Your task to perform on an android device: check out phone information Image 0: 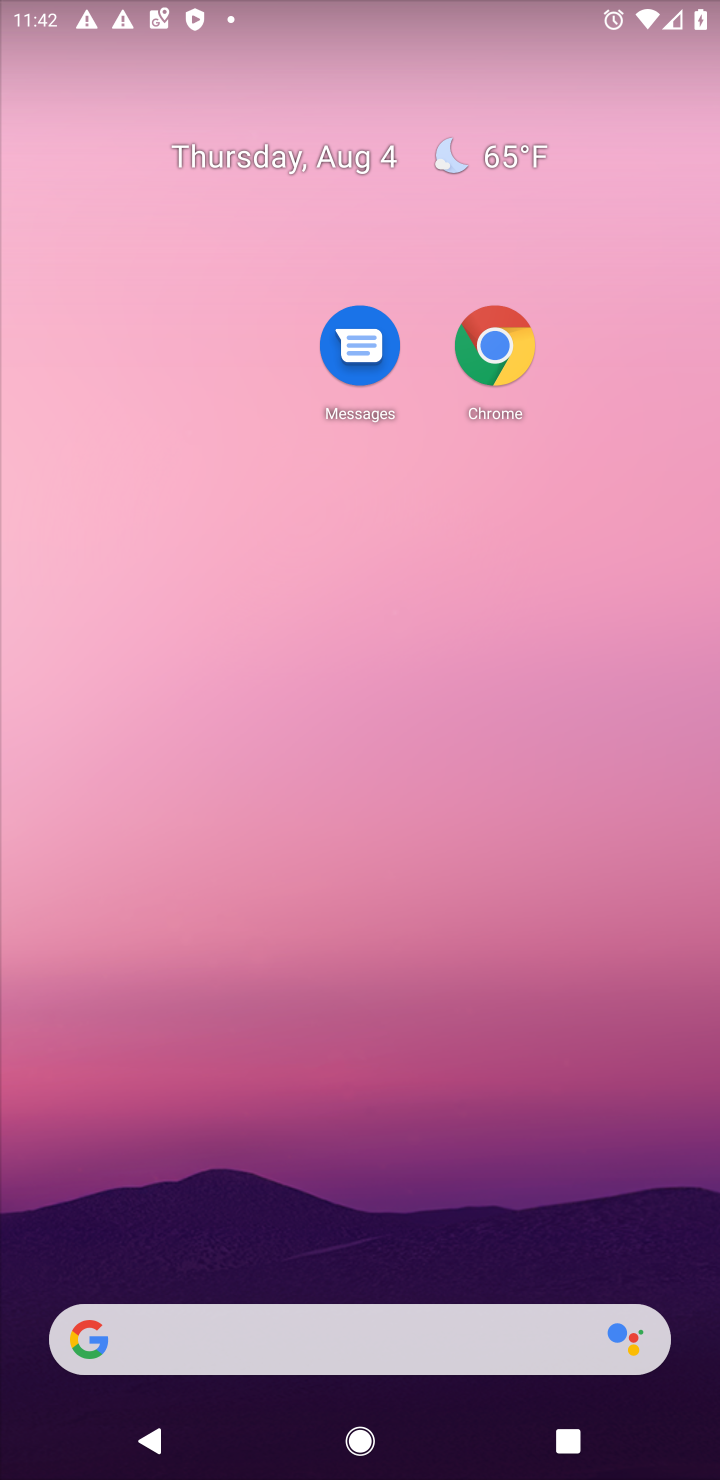
Step 0: drag from (217, 1250) to (346, 135)
Your task to perform on an android device: check out phone information Image 1: 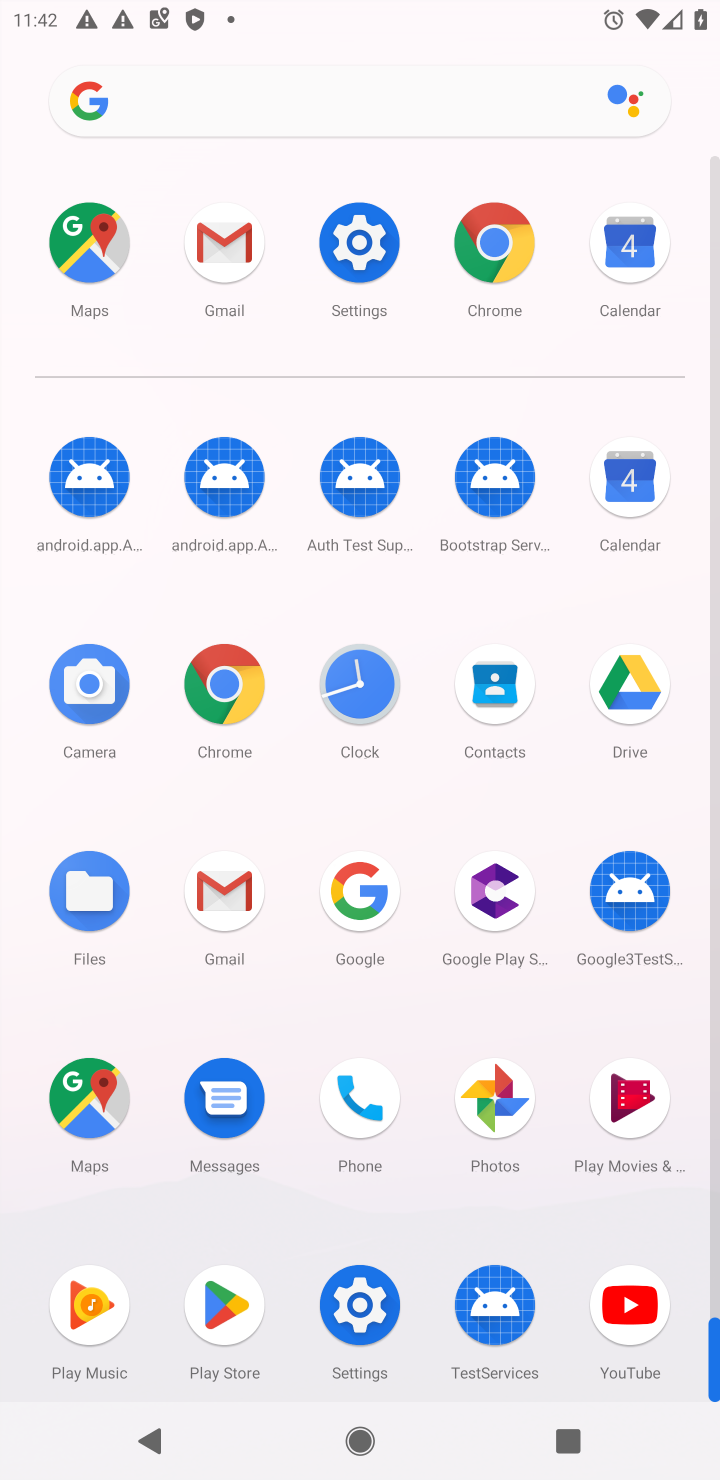
Step 1: click (383, 274)
Your task to perform on an android device: check out phone information Image 2: 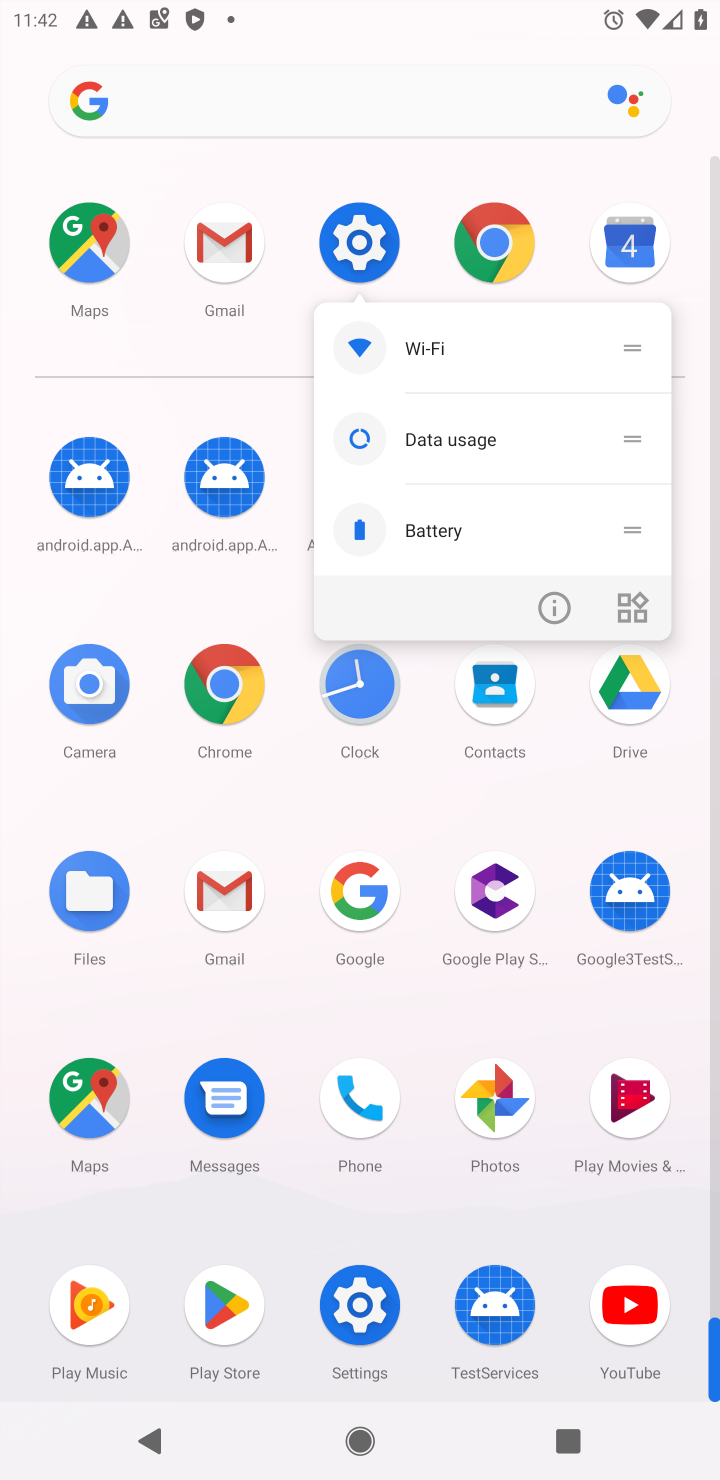
Step 2: click (347, 239)
Your task to perform on an android device: check out phone information Image 3: 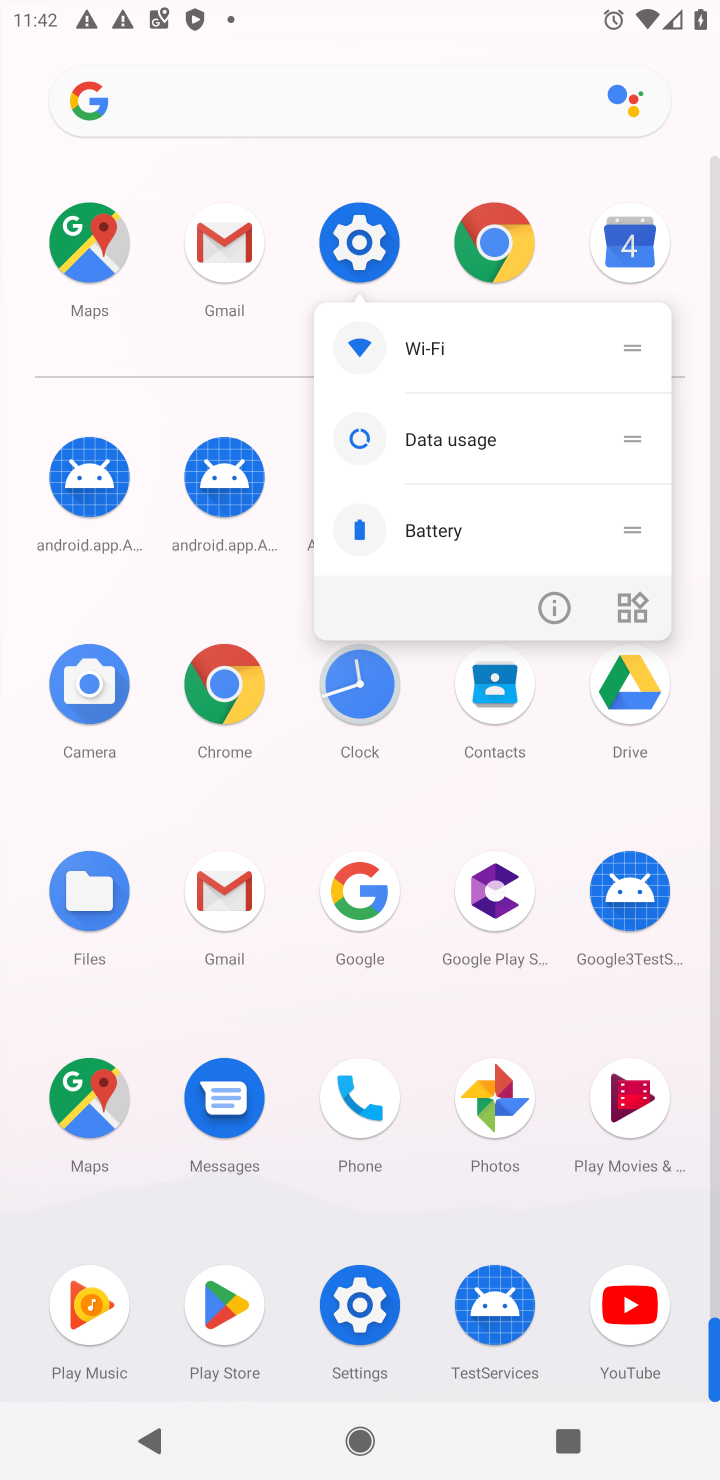
Step 3: click (347, 239)
Your task to perform on an android device: check out phone information Image 4: 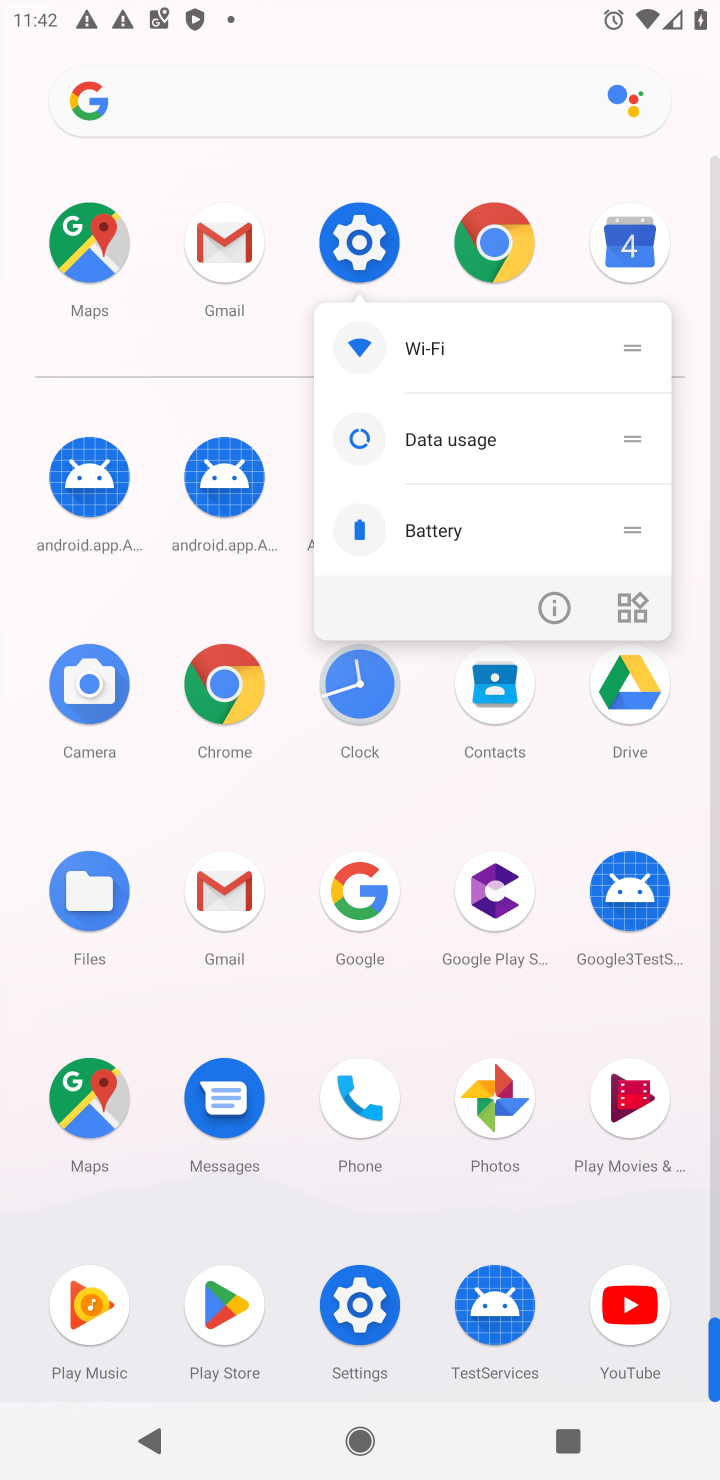
Step 4: click (347, 239)
Your task to perform on an android device: check out phone information Image 5: 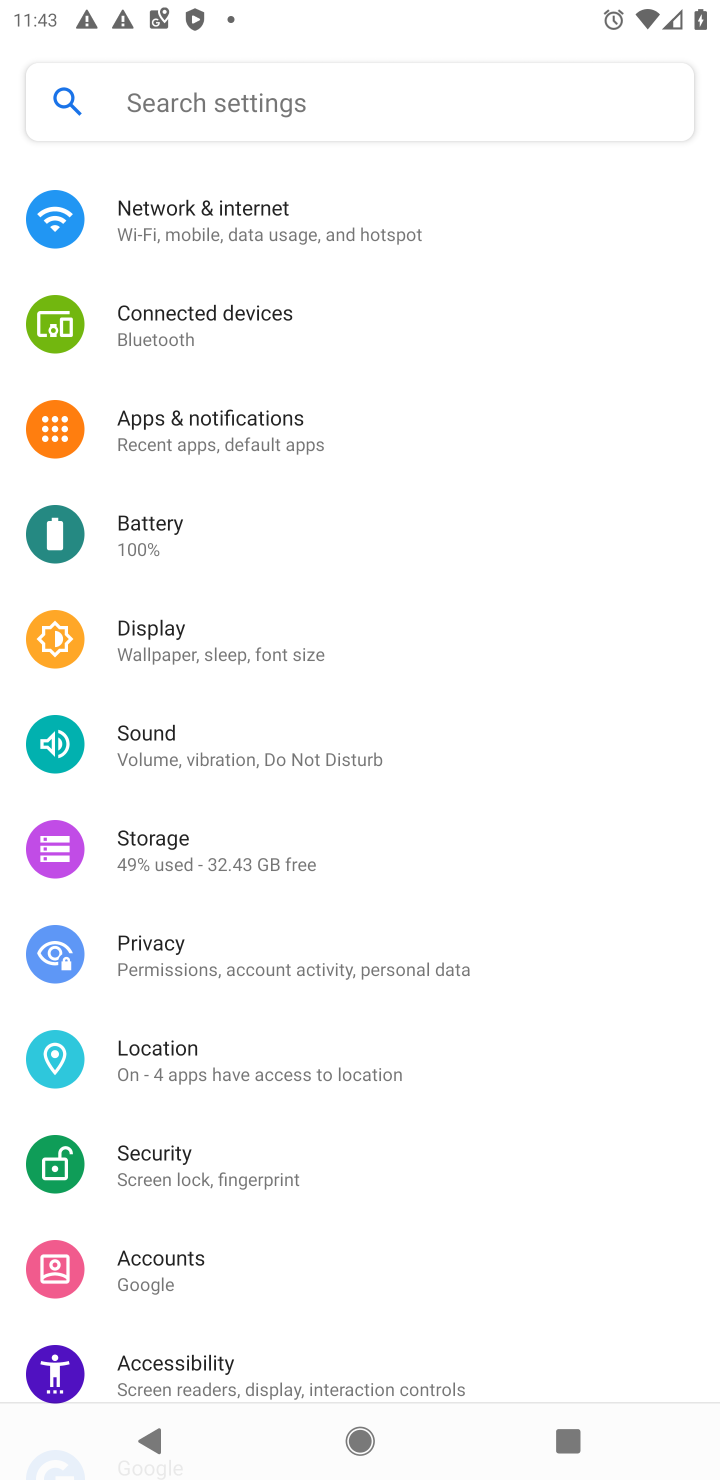
Step 5: drag from (199, 1328) to (203, 387)
Your task to perform on an android device: check out phone information Image 6: 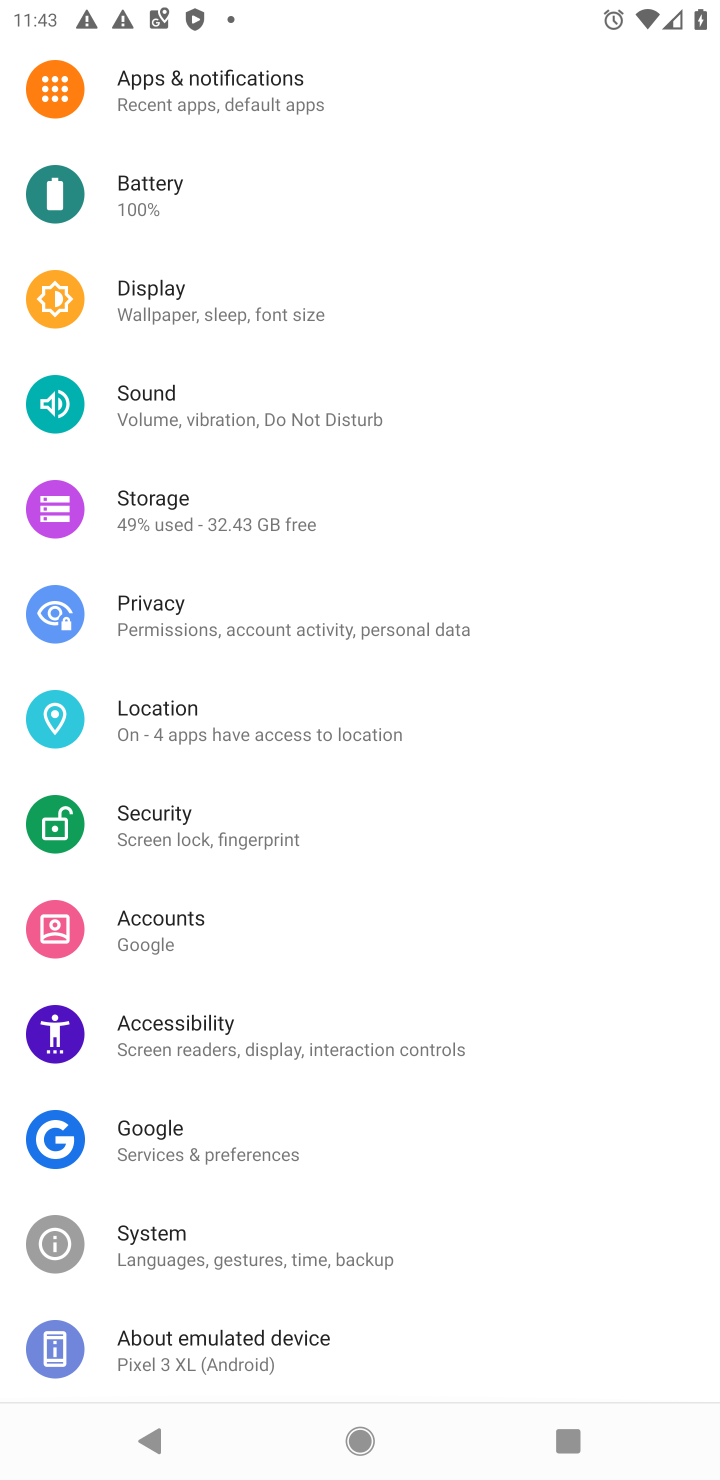
Step 6: drag from (146, 1304) to (289, 400)
Your task to perform on an android device: check out phone information Image 7: 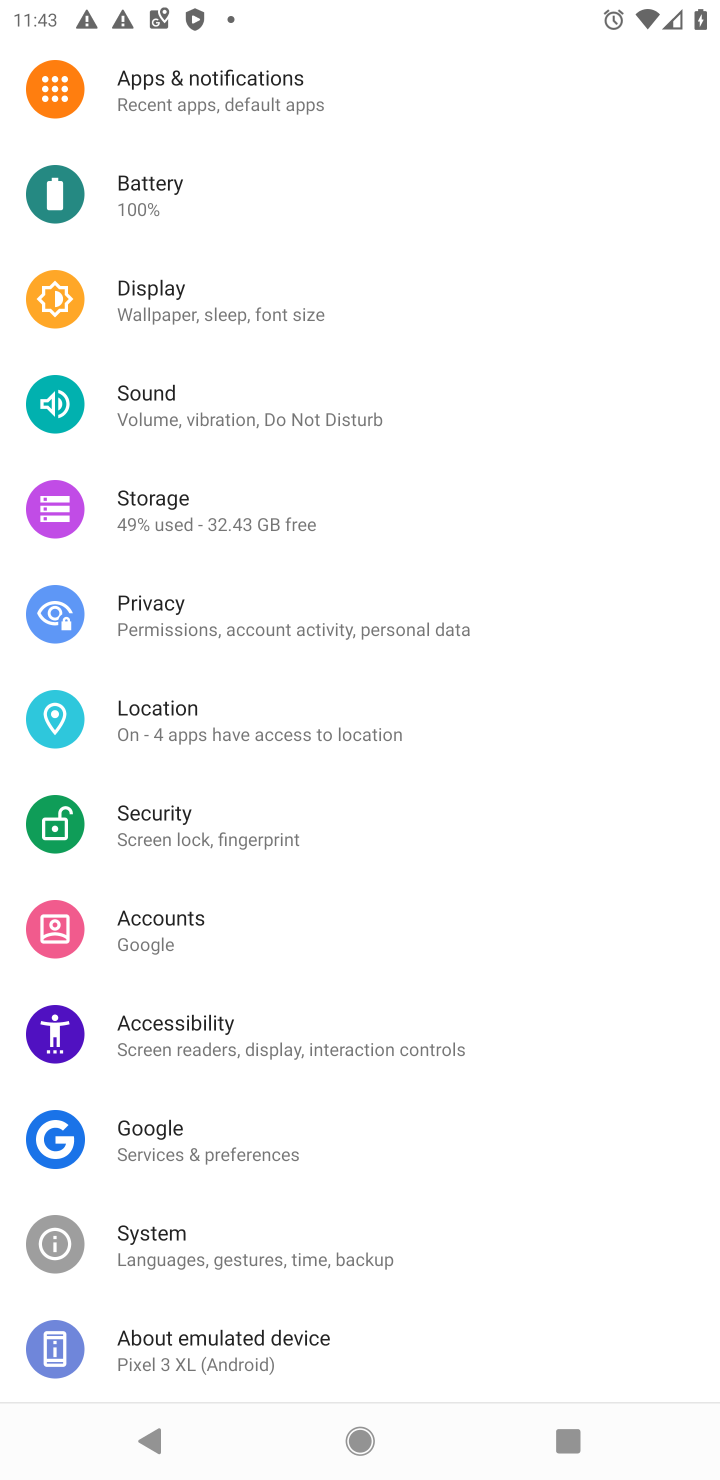
Step 7: click (156, 1356)
Your task to perform on an android device: check out phone information Image 8: 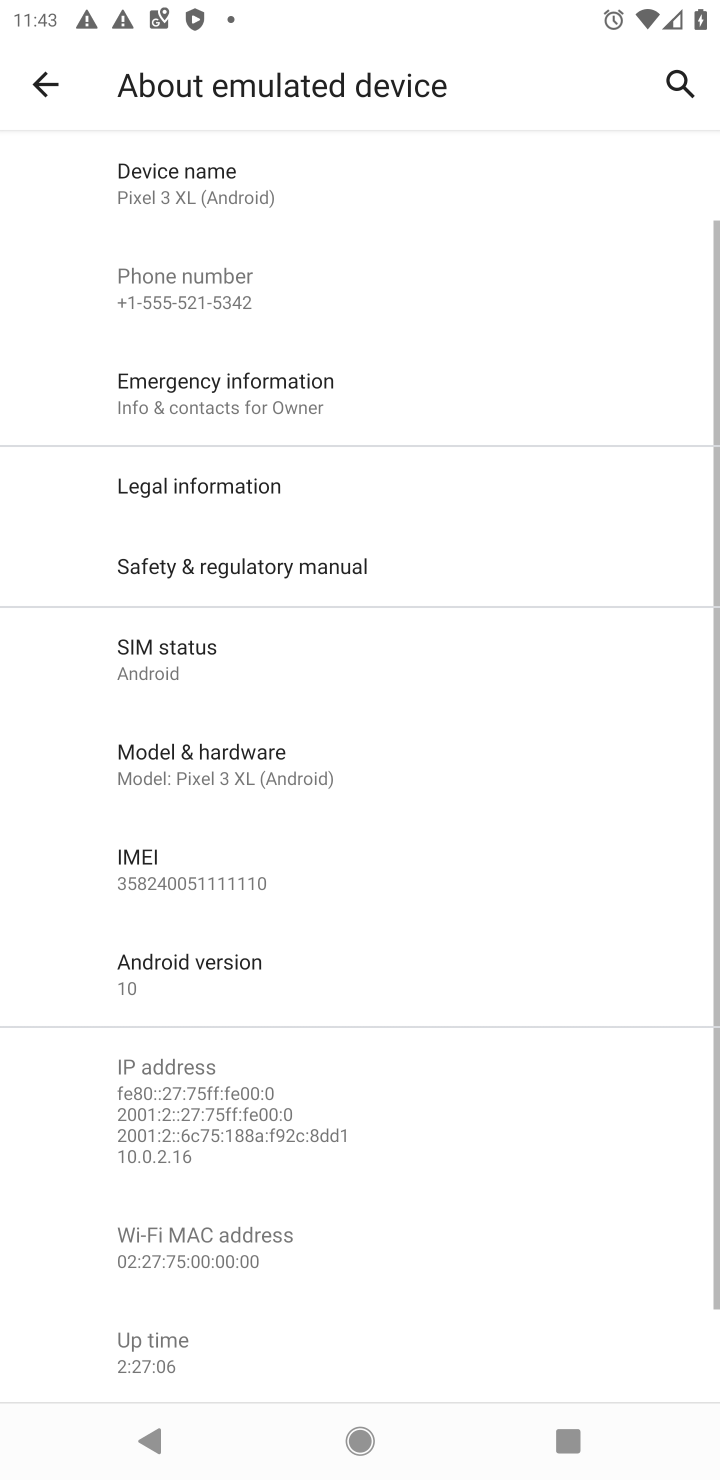
Step 8: task complete